Your task to perform on an android device: turn on improve location accuracy Image 0: 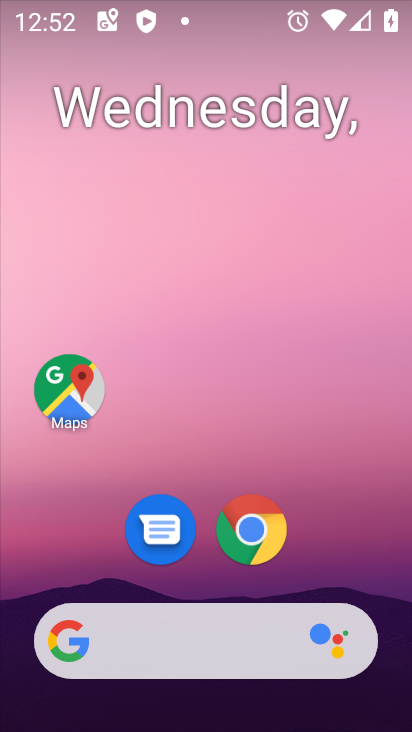
Step 0: drag from (382, 490) to (367, 257)
Your task to perform on an android device: turn on improve location accuracy Image 1: 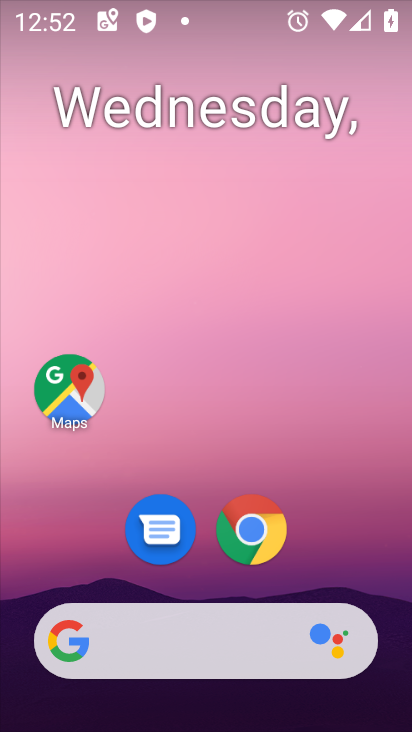
Step 1: drag from (373, 570) to (303, 72)
Your task to perform on an android device: turn on improve location accuracy Image 2: 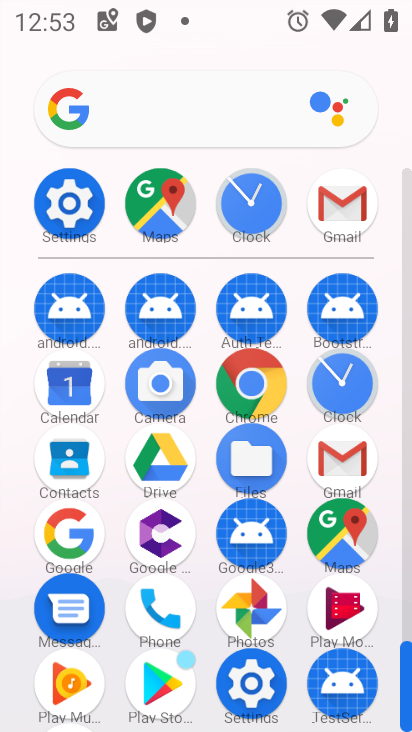
Step 2: click (253, 689)
Your task to perform on an android device: turn on improve location accuracy Image 3: 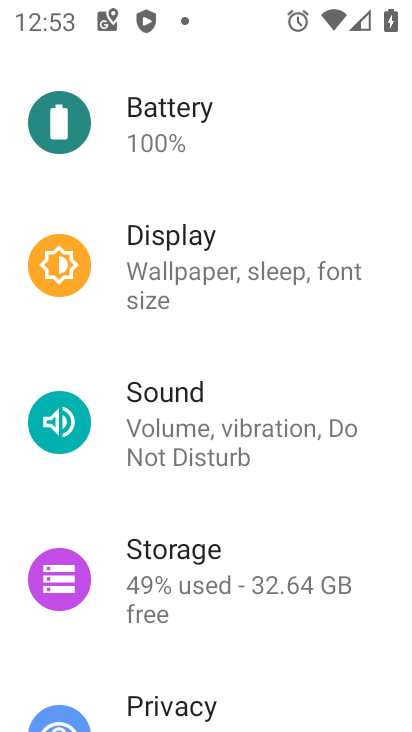
Step 3: drag from (356, 673) to (356, 249)
Your task to perform on an android device: turn on improve location accuracy Image 4: 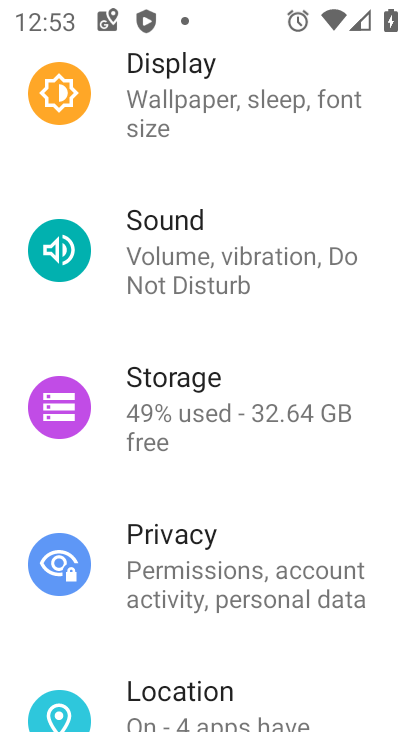
Step 4: drag from (343, 654) to (317, 194)
Your task to perform on an android device: turn on improve location accuracy Image 5: 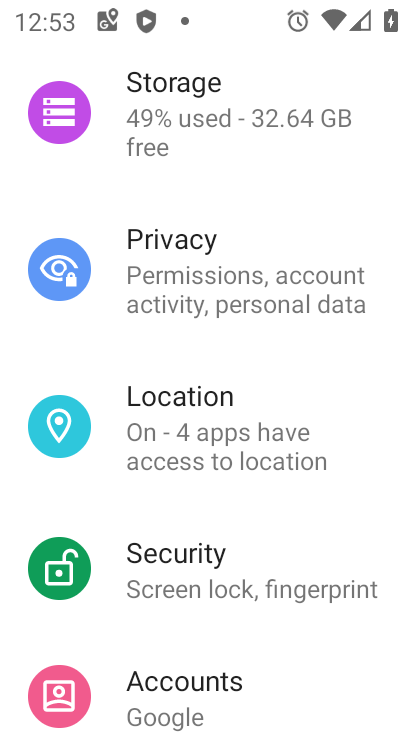
Step 5: click (179, 421)
Your task to perform on an android device: turn on improve location accuracy Image 6: 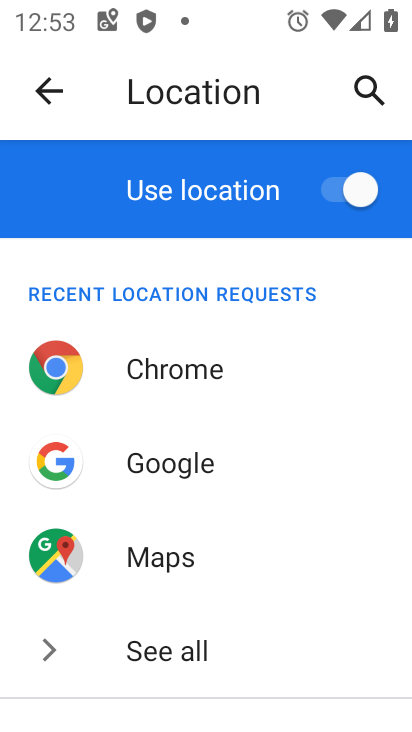
Step 6: drag from (296, 655) to (289, 132)
Your task to perform on an android device: turn on improve location accuracy Image 7: 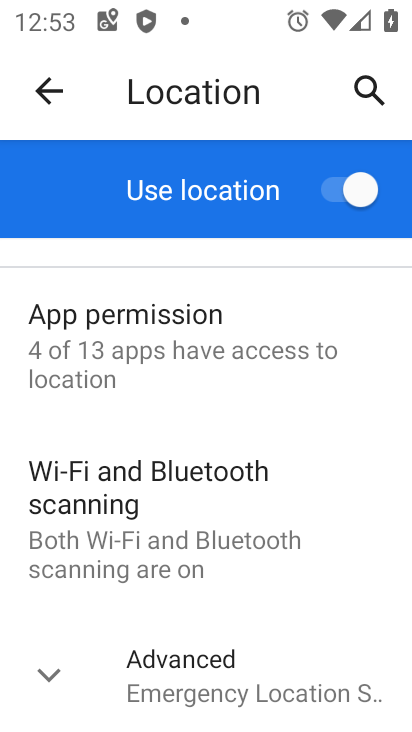
Step 7: click (40, 672)
Your task to perform on an android device: turn on improve location accuracy Image 8: 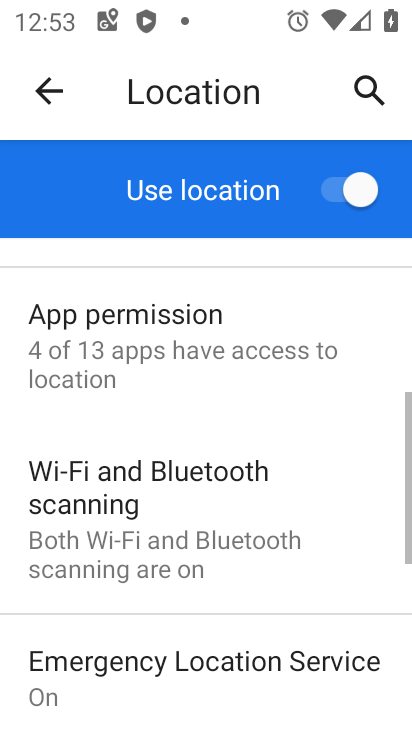
Step 8: drag from (291, 660) to (278, 243)
Your task to perform on an android device: turn on improve location accuracy Image 9: 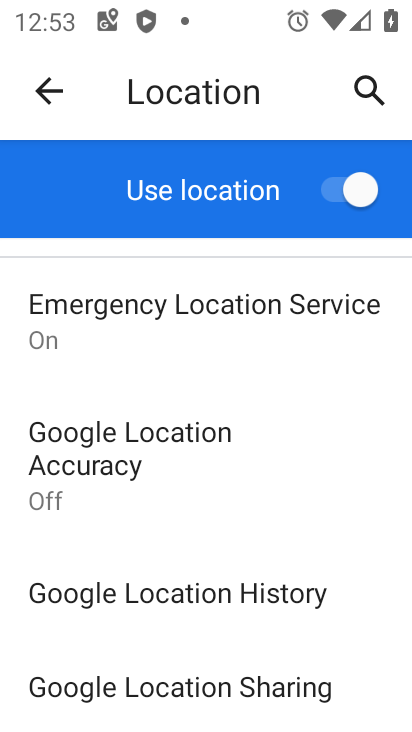
Step 9: click (64, 443)
Your task to perform on an android device: turn on improve location accuracy Image 10: 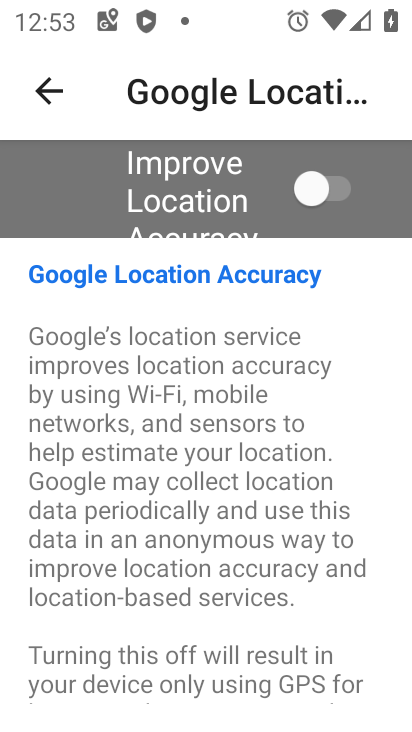
Step 10: click (340, 193)
Your task to perform on an android device: turn on improve location accuracy Image 11: 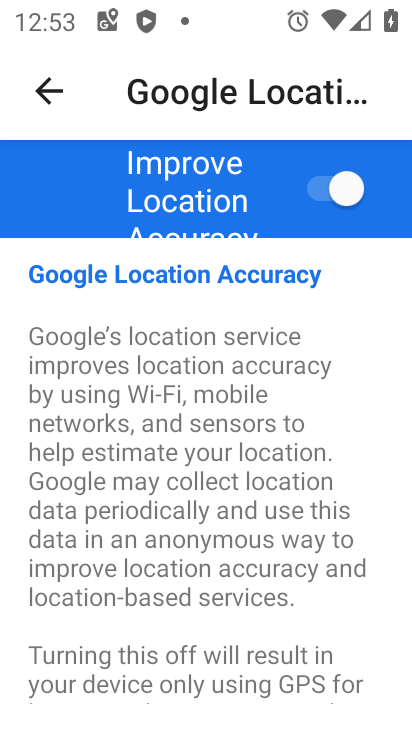
Step 11: task complete